Your task to perform on an android device: Open the calendar app, open the side menu, and click the "Day" option Image 0: 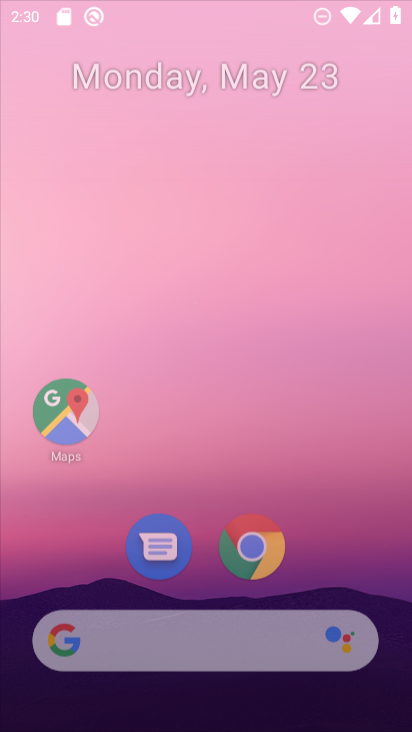
Step 0: drag from (310, 473) to (364, 86)
Your task to perform on an android device: Open the calendar app, open the side menu, and click the "Day" option Image 1: 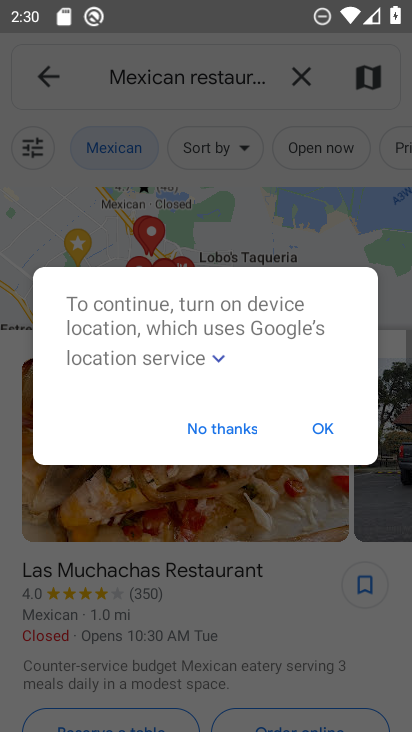
Step 1: press home button
Your task to perform on an android device: Open the calendar app, open the side menu, and click the "Day" option Image 2: 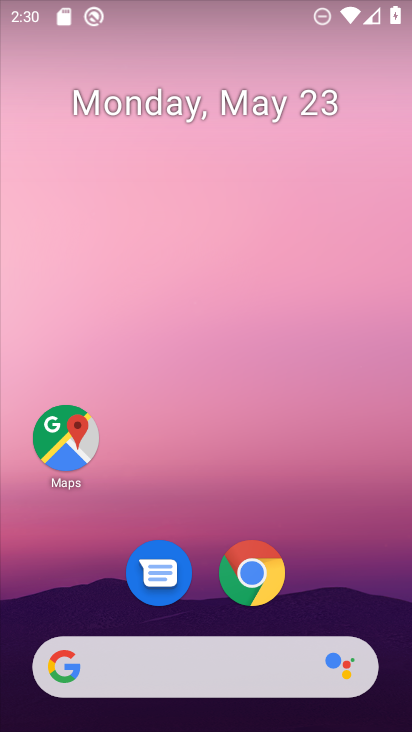
Step 2: drag from (339, 535) to (362, 108)
Your task to perform on an android device: Open the calendar app, open the side menu, and click the "Day" option Image 3: 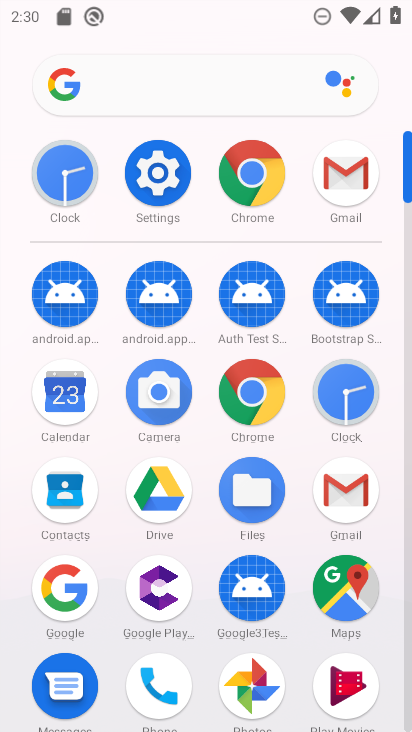
Step 3: click (32, 395)
Your task to perform on an android device: Open the calendar app, open the side menu, and click the "Day" option Image 4: 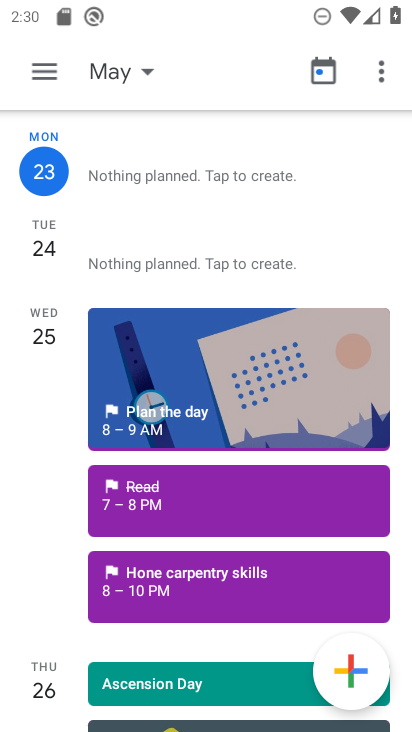
Step 4: click (54, 63)
Your task to perform on an android device: Open the calendar app, open the side menu, and click the "Day" option Image 5: 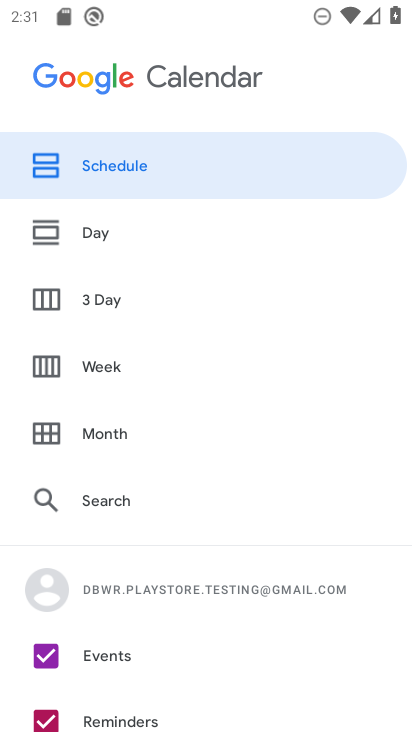
Step 5: click (81, 220)
Your task to perform on an android device: Open the calendar app, open the side menu, and click the "Day" option Image 6: 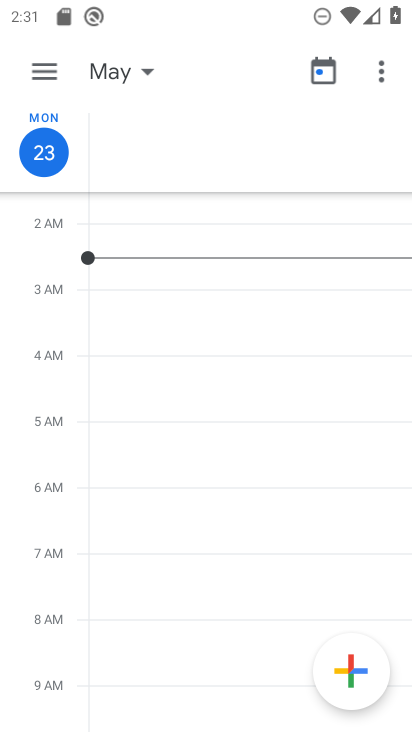
Step 6: task complete